Your task to perform on an android device: Open Google Image 0: 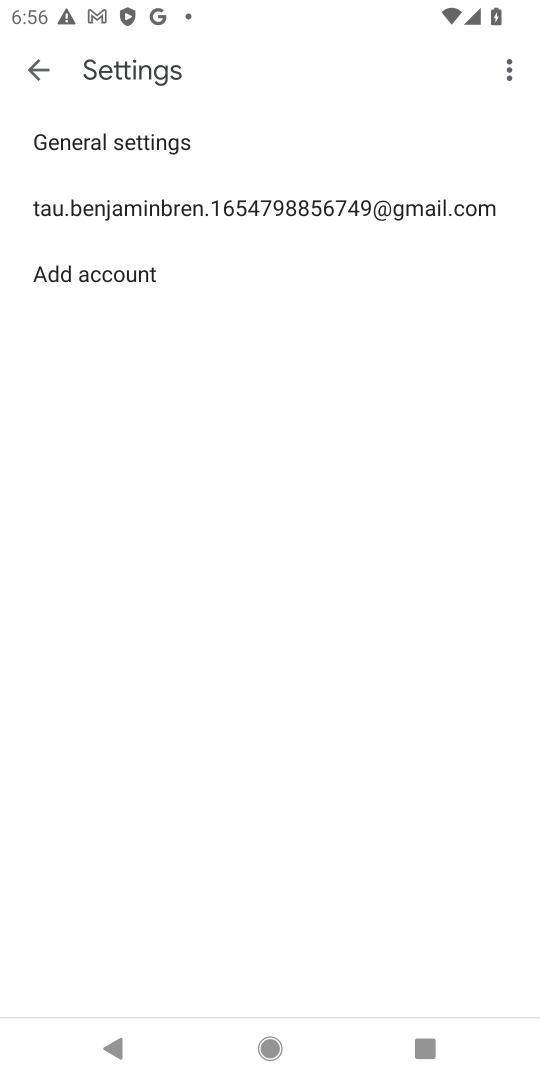
Step 0: press home button
Your task to perform on an android device: Open Google Image 1: 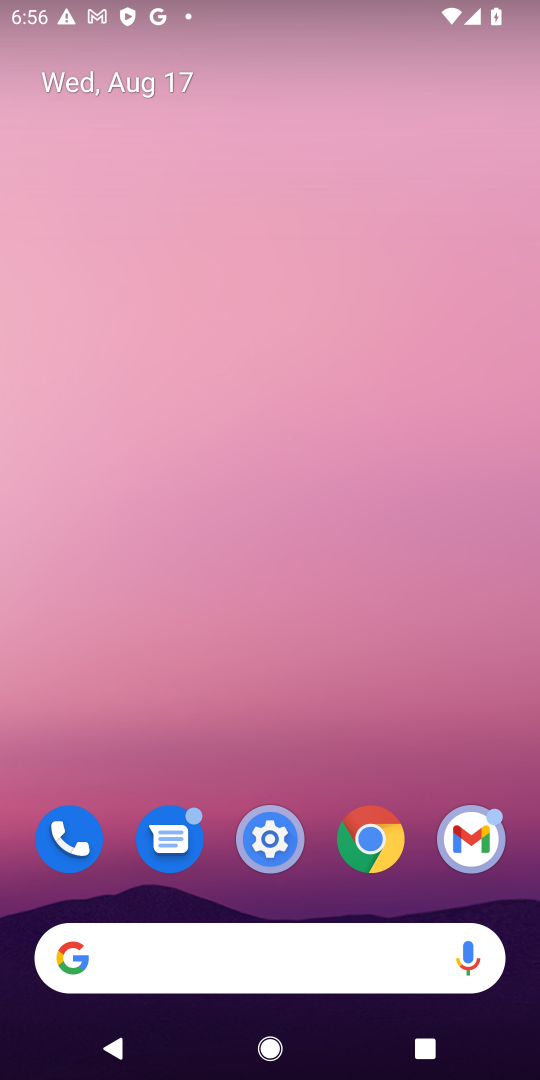
Step 1: click (236, 956)
Your task to perform on an android device: Open Google Image 2: 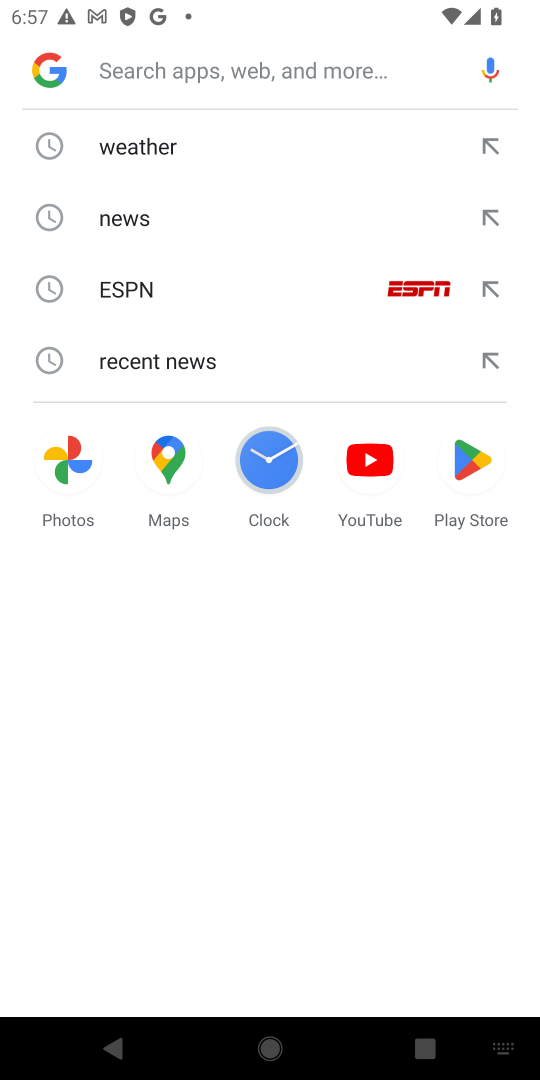
Step 2: task complete